Your task to perform on an android device: Check the news Image 0: 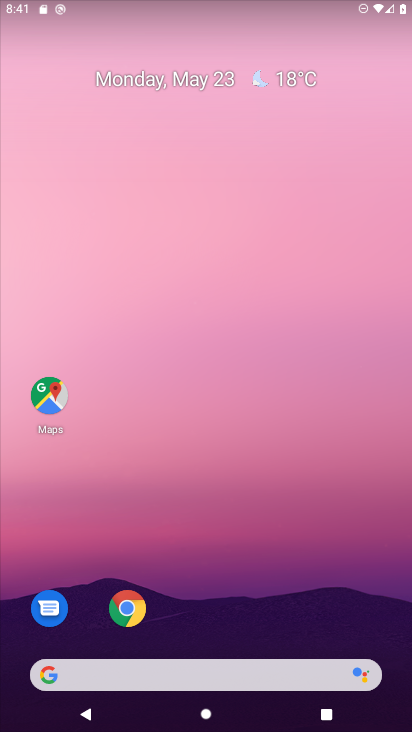
Step 0: drag from (2, 261) to (407, 241)
Your task to perform on an android device: Check the news Image 1: 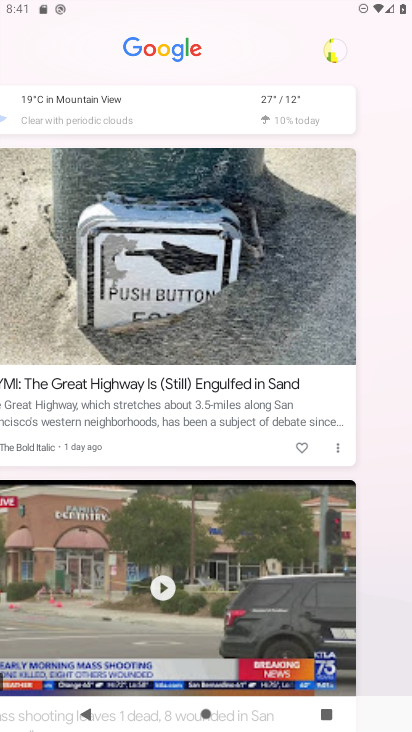
Step 1: task complete